Your task to perform on an android device: open chrome and create a bookmark for the current page Image 0: 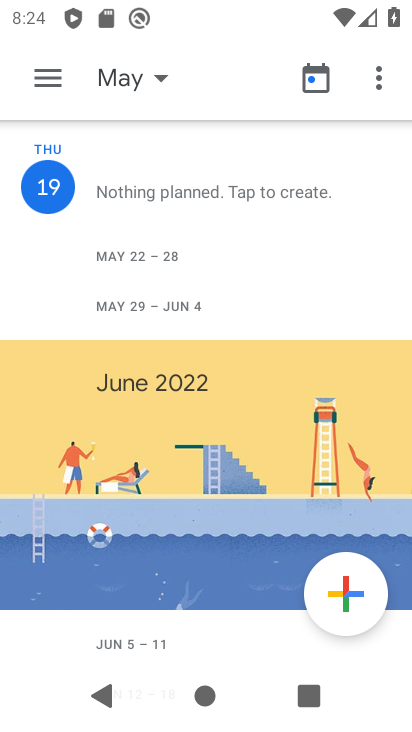
Step 0: press home button
Your task to perform on an android device: open chrome and create a bookmark for the current page Image 1: 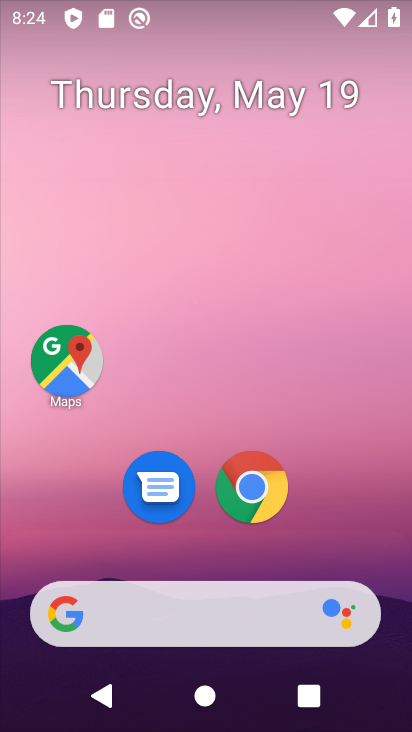
Step 1: click (261, 481)
Your task to perform on an android device: open chrome and create a bookmark for the current page Image 2: 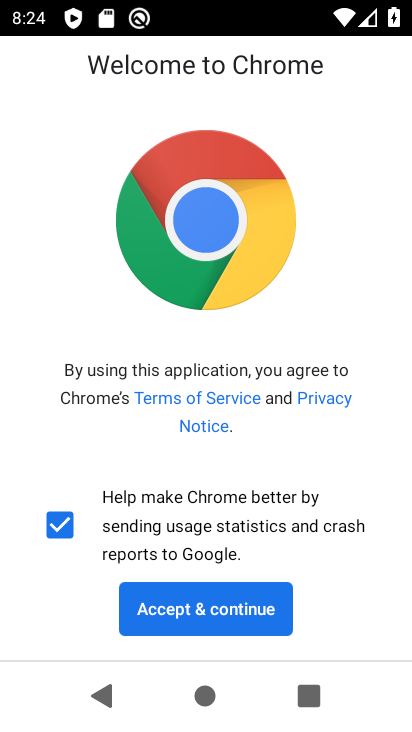
Step 2: click (249, 606)
Your task to perform on an android device: open chrome and create a bookmark for the current page Image 3: 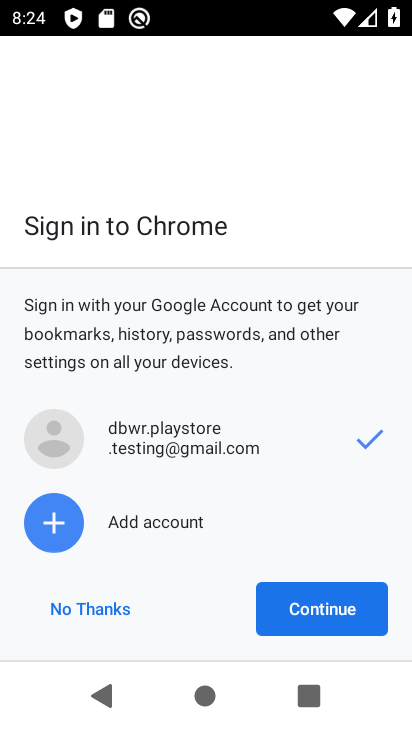
Step 3: click (278, 593)
Your task to perform on an android device: open chrome and create a bookmark for the current page Image 4: 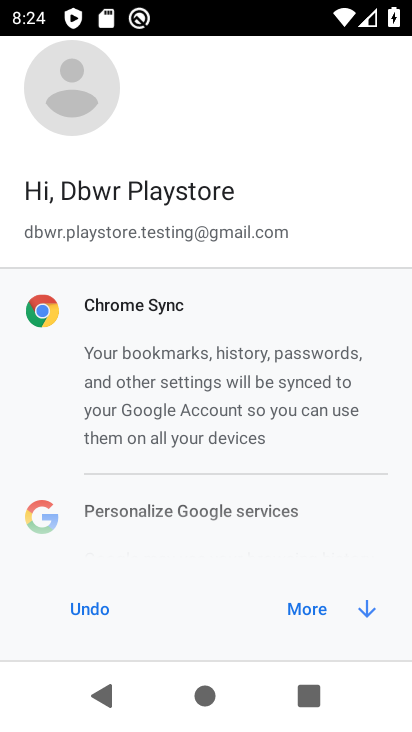
Step 4: click (290, 614)
Your task to perform on an android device: open chrome and create a bookmark for the current page Image 5: 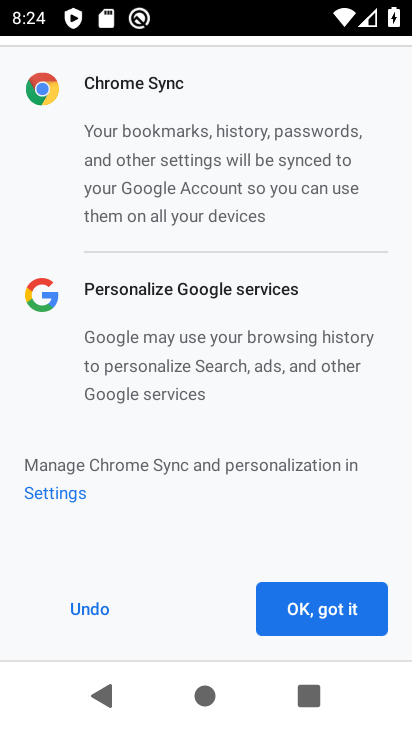
Step 5: click (328, 613)
Your task to perform on an android device: open chrome and create a bookmark for the current page Image 6: 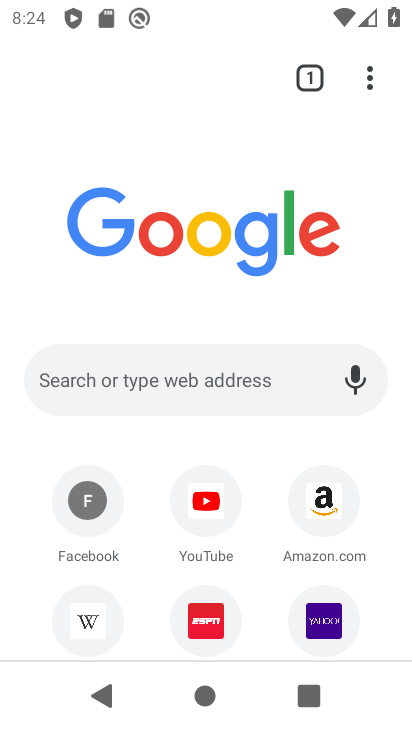
Step 6: task complete